Your task to perform on an android device: delete browsing data in the chrome app Image 0: 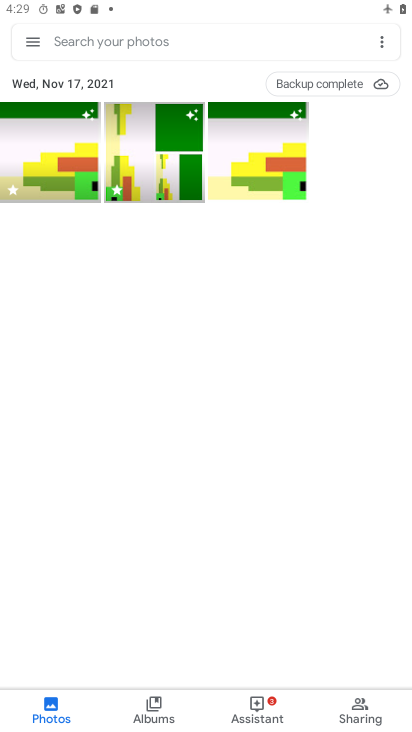
Step 0: press home button
Your task to perform on an android device: delete browsing data in the chrome app Image 1: 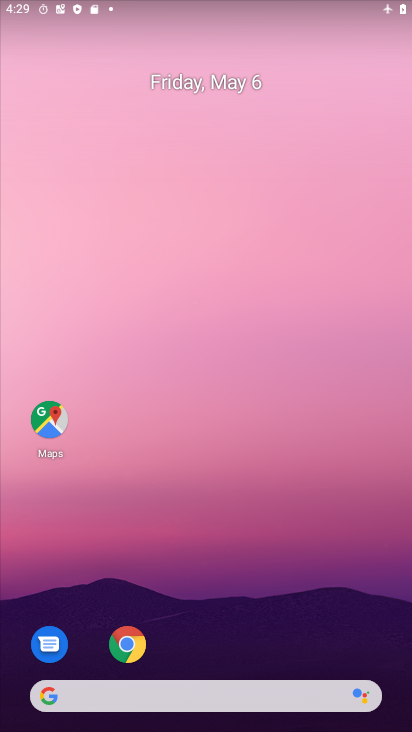
Step 1: drag from (294, 577) to (387, 488)
Your task to perform on an android device: delete browsing data in the chrome app Image 2: 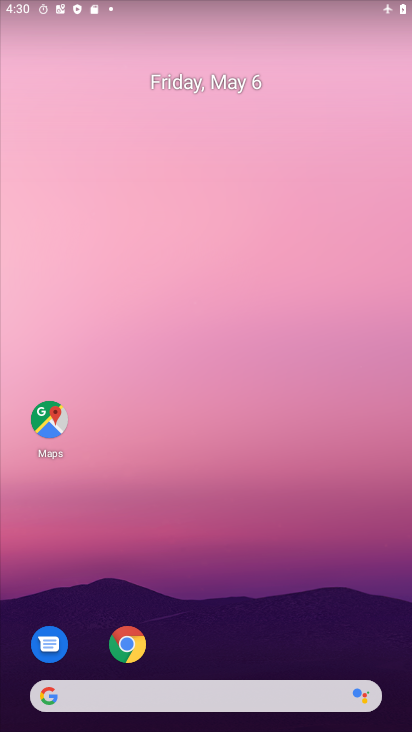
Step 2: drag from (307, 644) to (207, 356)
Your task to perform on an android device: delete browsing data in the chrome app Image 3: 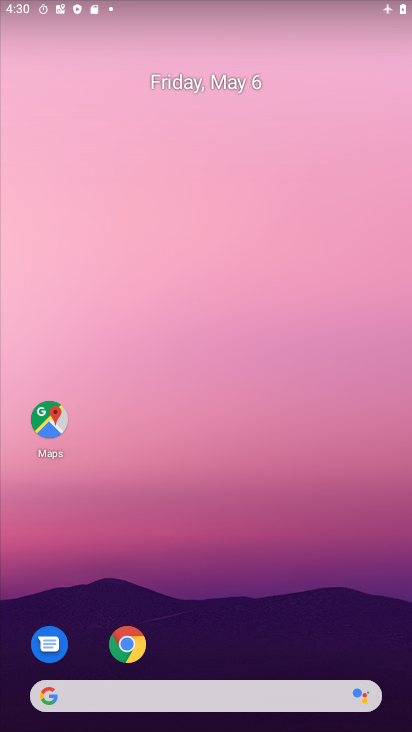
Step 3: drag from (239, 555) to (85, 199)
Your task to perform on an android device: delete browsing data in the chrome app Image 4: 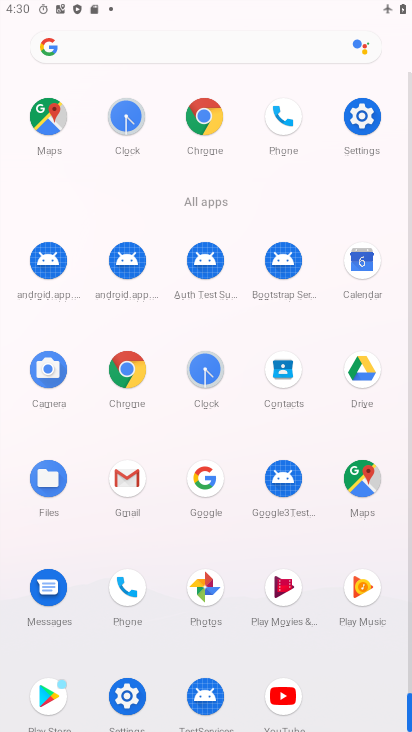
Step 4: click (202, 126)
Your task to perform on an android device: delete browsing data in the chrome app Image 5: 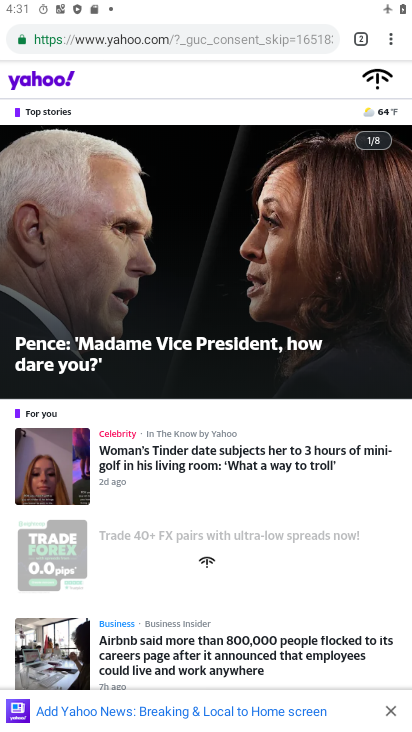
Step 5: drag from (388, 39) to (251, 276)
Your task to perform on an android device: delete browsing data in the chrome app Image 6: 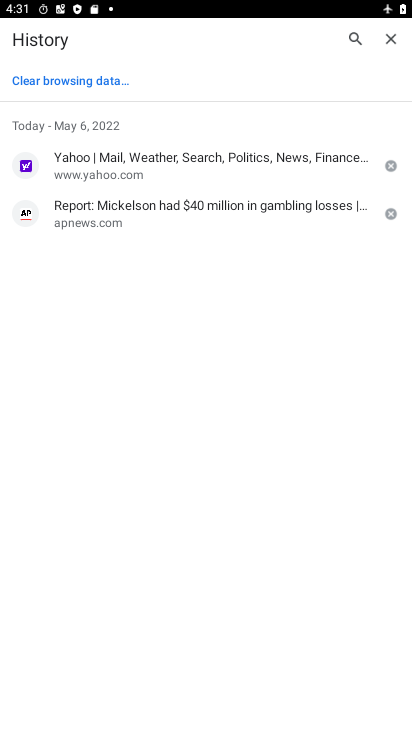
Step 6: click (388, 162)
Your task to perform on an android device: delete browsing data in the chrome app Image 7: 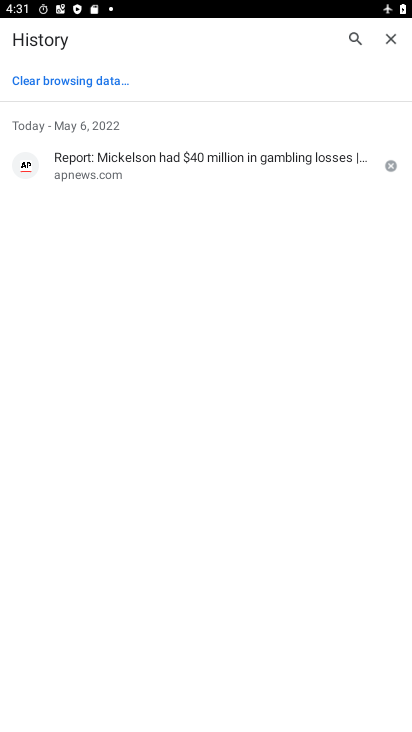
Step 7: task complete